Your task to perform on an android device: Open the phone app and click the voicemail tab. Image 0: 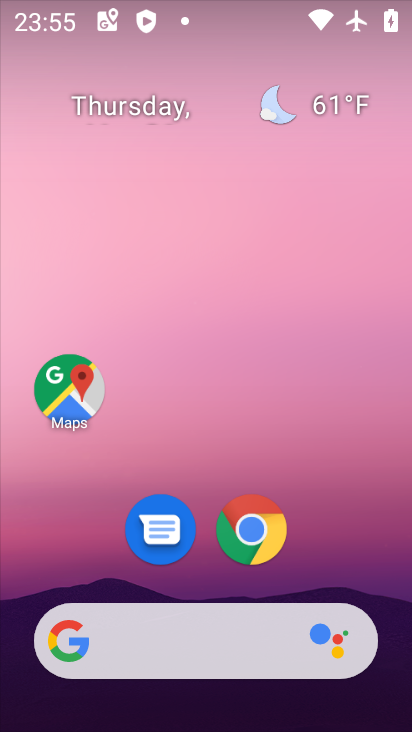
Step 0: drag from (355, 552) to (309, 148)
Your task to perform on an android device: Open the phone app and click the voicemail tab. Image 1: 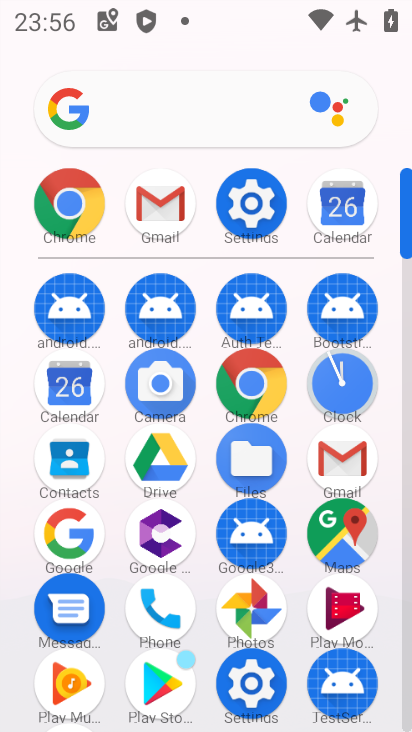
Step 1: click (151, 615)
Your task to perform on an android device: Open the phone app and click the voicemail tab. Image 2: 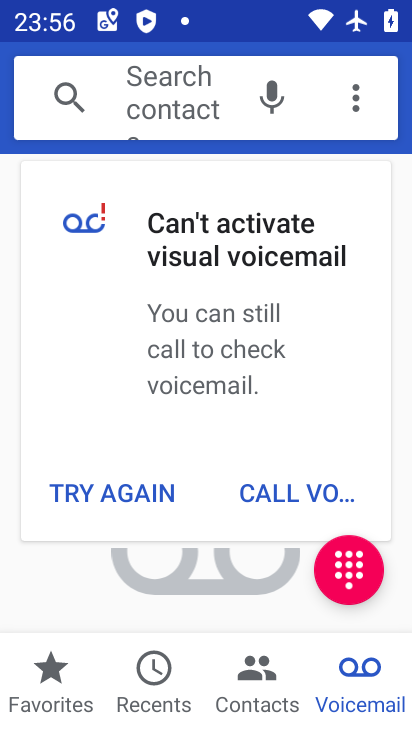
Step 2: click (338, 674)
Your task to perform on an android device: Open the phone app and click the voicemail tab. Image 3: 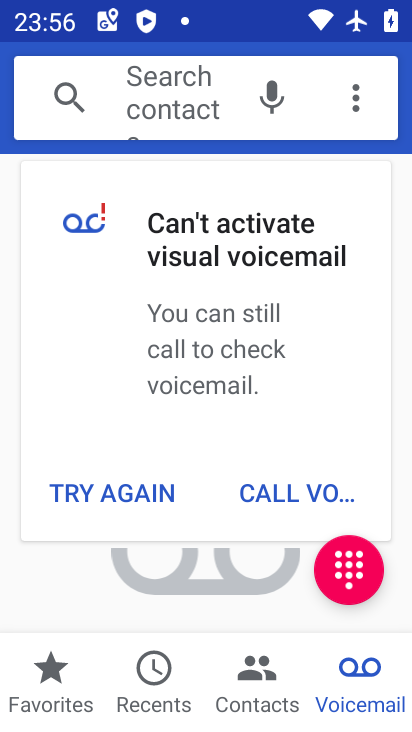
Step 3: task complete